Your task to perform on an android device: What's on my calendar today? Image 0: 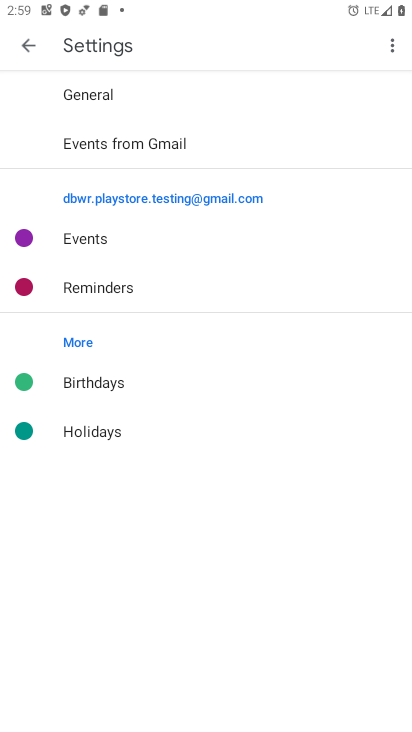
Step 0: press home button
Your task to perform on an android device: What's on my calendar today? Image 1: 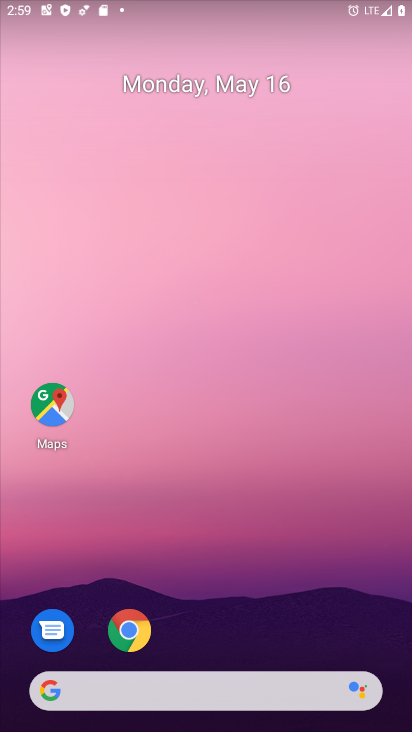
Step 1: drag from (208, 644) to (209, 174)
Your task to perform on an android device: What's on my calendar today? Image 2: 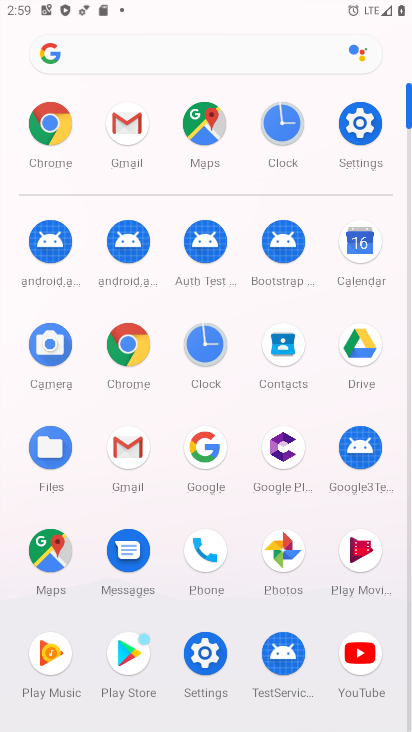
Step 2: click (359, 239)
Your task to perform on an android device: What's on my calendar today? Image 3: 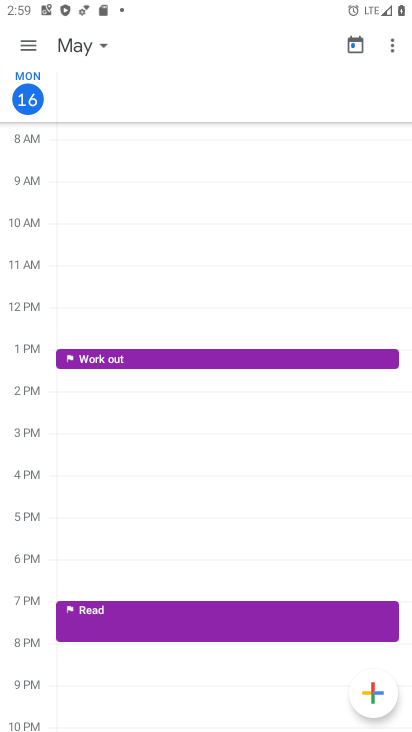
Step 3: drag from (35, 170) to (61, 591)
Your task to perform on an android device: What's on my calendar today? Image 4: 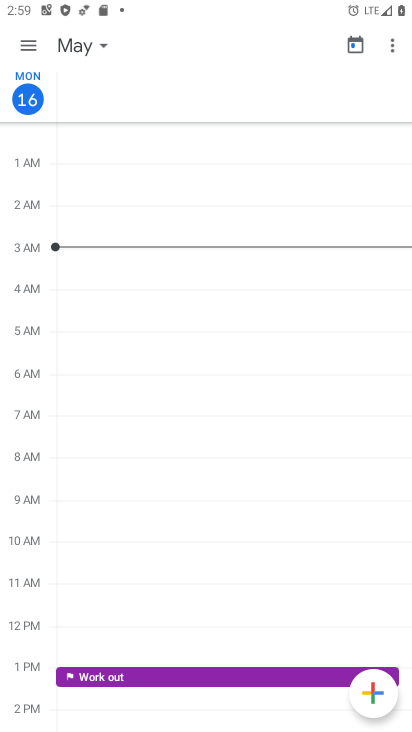
Step 4: drag from (106, 245) to (35, 555)
Your task to perform on an android device: What's on my calendar today? Image 5: 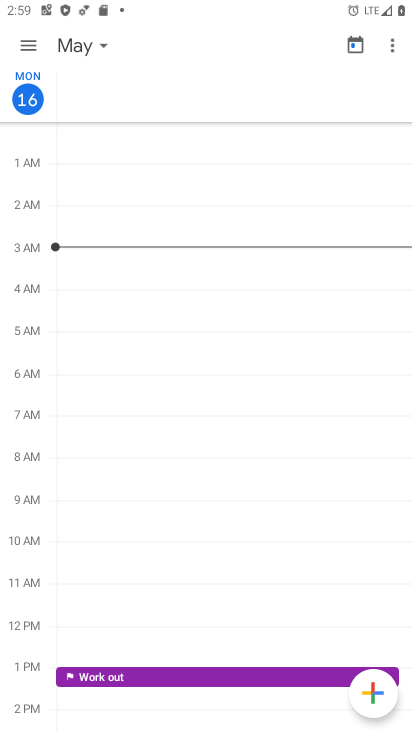
Step 5: drag from (27, 607) to (19, 190)
Your task to perform on an android device: What's on my calendar today? Image 6: 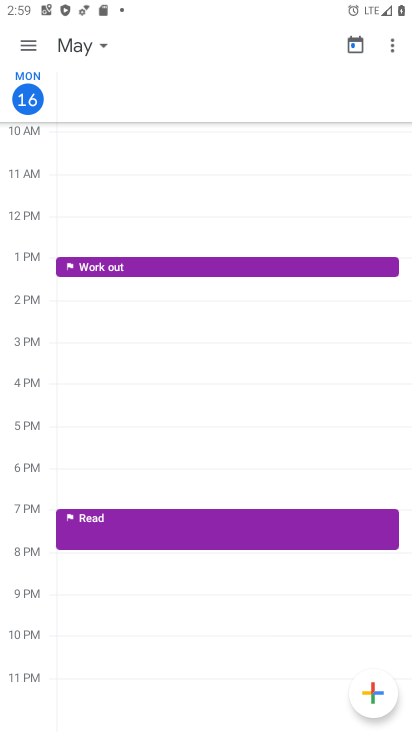
Step 6: click (76, 410)
Your task to perform on an android device: What's on my calendar today? Image 7: 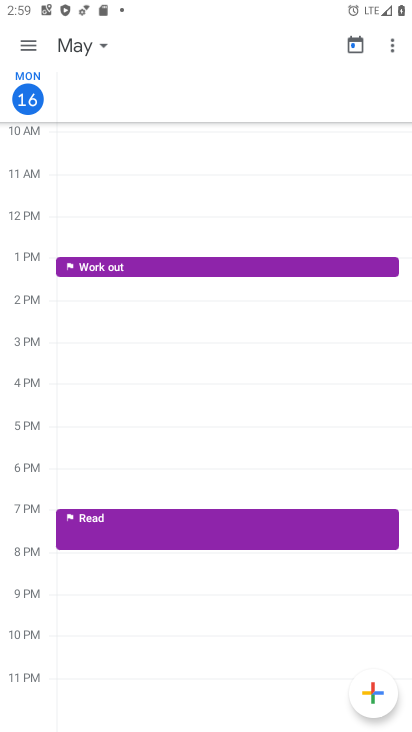
Step 7: task complete